Your task to perform on an android device: change timer sound Image 0: 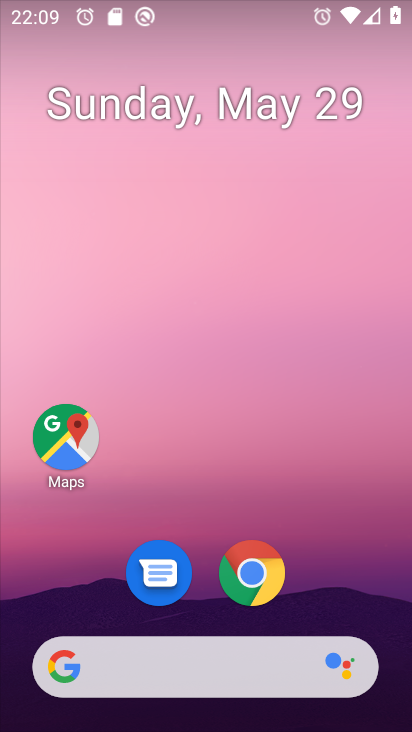
Step 0: drag from (217, 527) to (259, 32)
Your task to perform on an android device: change timer sound Image 1: 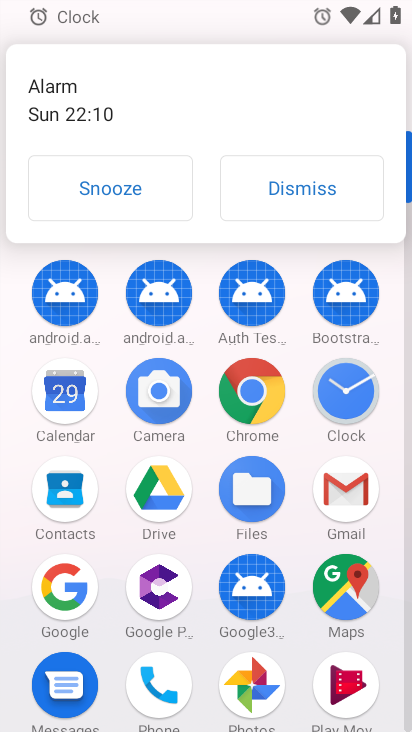
Step 1: click (161, 165)
Your task to perform on an android device: change timer sound Image 2: 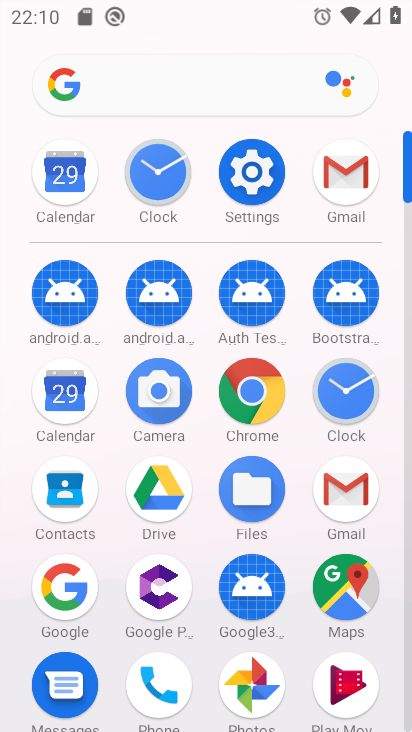
Step 2: click (158, 188)
Your task to perform on an android device: change timer sound Image 3: 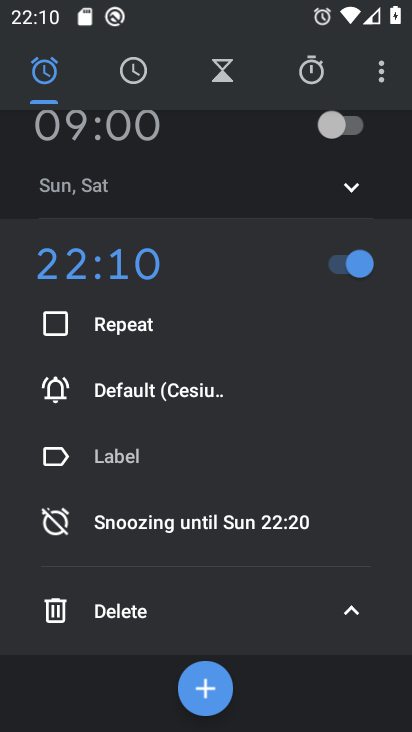
Step 3: click (388, 72)
Your task to perform on an android device: change timer sound Image 4: 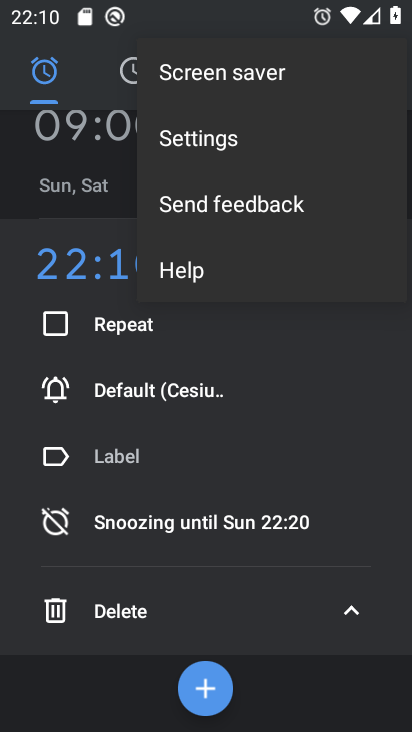
Step 4: click (229, 139)
Your task to perform on an android device: change timer sound Image 5: 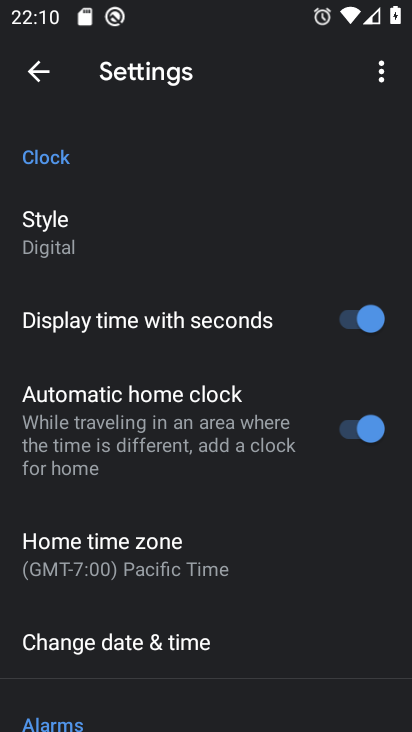
Step 5: drag from (178, 522) to (296, 66)
Your task to perform on an android device: change timer sound Image 6: 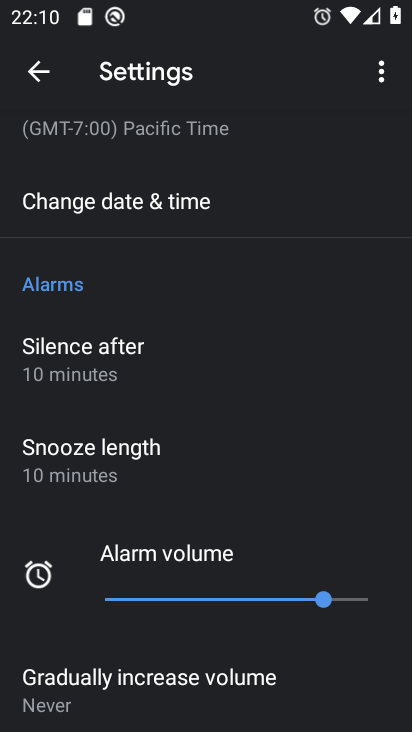
Step 6: drag from (169, 466) to (225, 100)
Your task to perform on an android device: change timer sound Image 7: 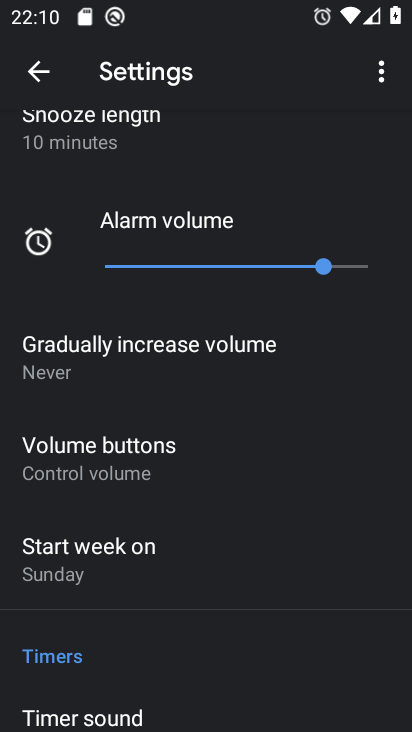
Step 7: drag from (126, 509) to (170, 181)
Your task to perform on an android device: change timer sound Image 8: 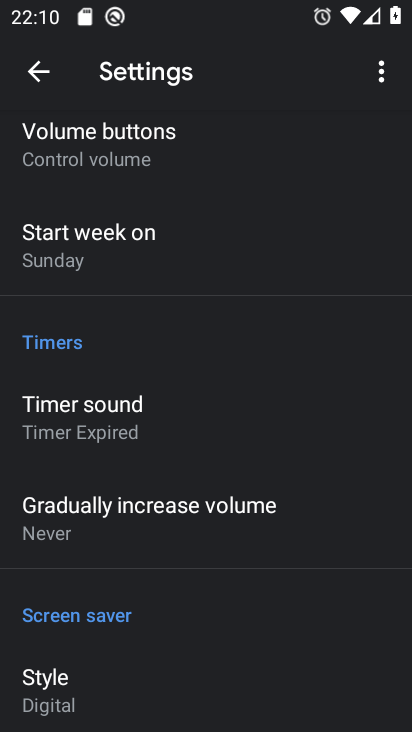
Step 8: click (145, 419)
Your task to perform on an android device: change timer sound Image 9: 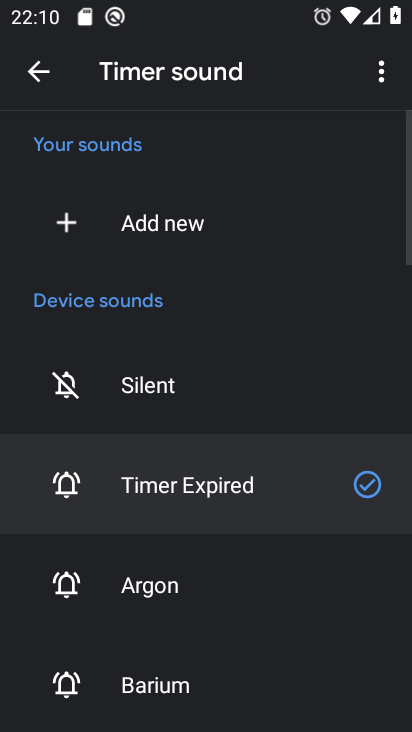
Step 9: click (132, 583)
Your task to perform on an android device: change timer sound Image 10: 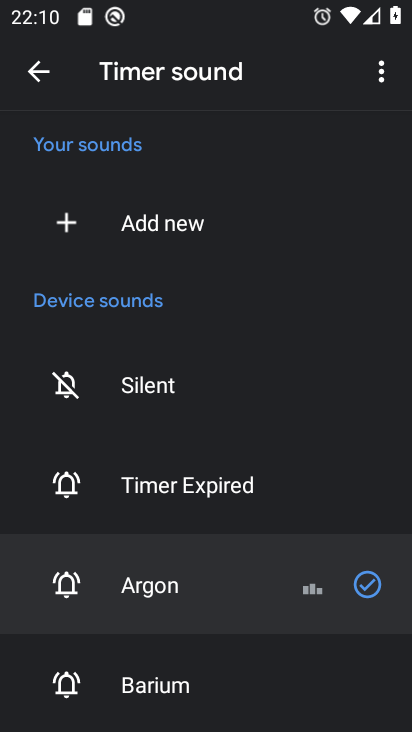
Step 10: task complete